Your task to perform on an android device: Search for bose soundlink on ebay.com, select the first entry, and add it to the cart. Image 0: 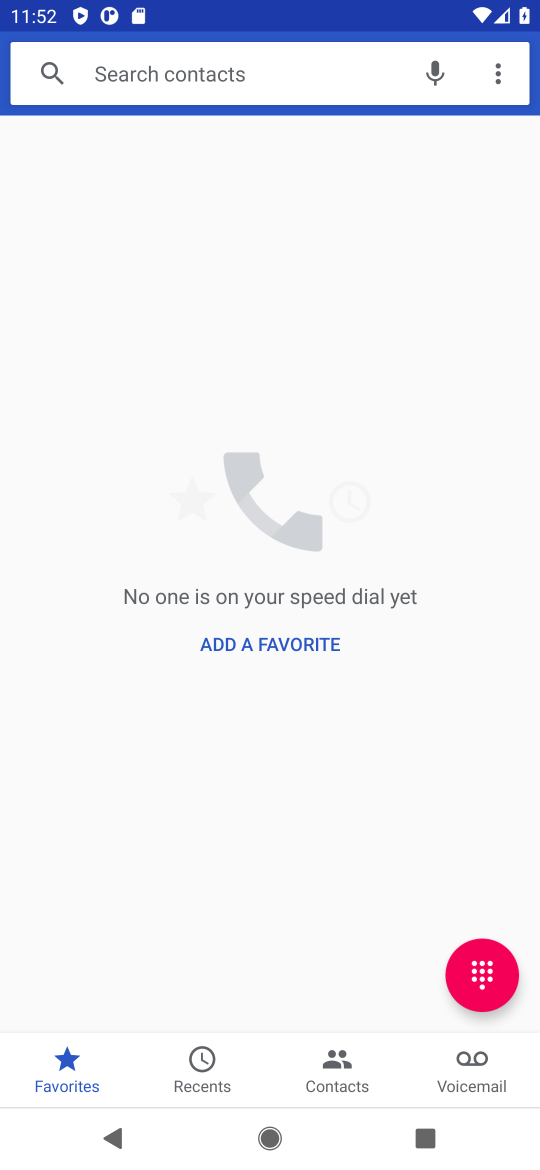
Step 0: press home button
Your task to perform on an android device: Search for bose soundlink on ebay.com, select the first entry, and add it to the cart. Image 1: 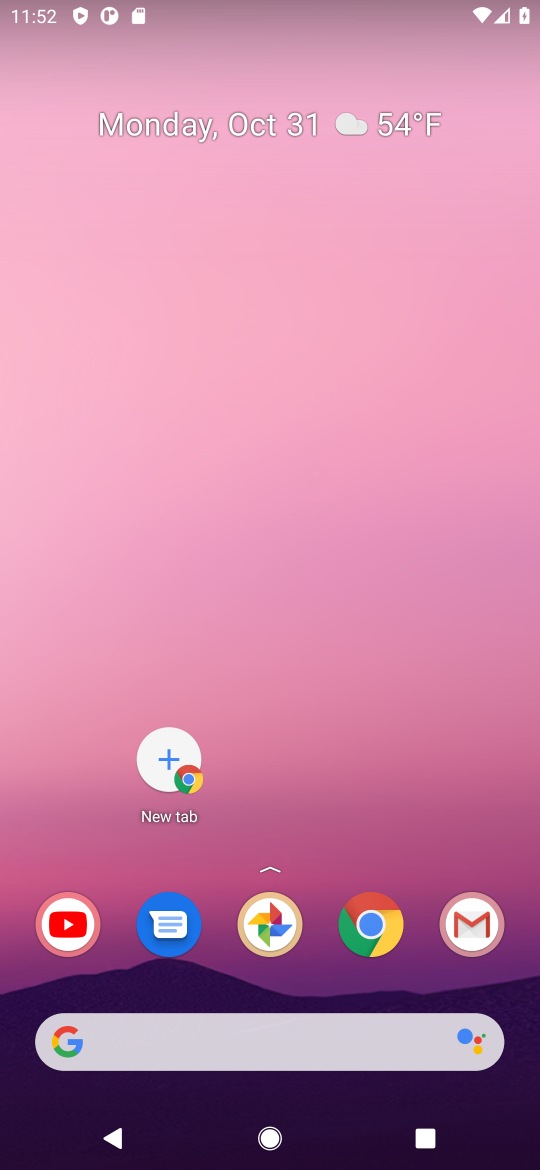
Step 1: press home button
Your task to perform on an android device: Search for bose soundlink on ebay.com, select the first entry, and add it to the cart. Image 2: 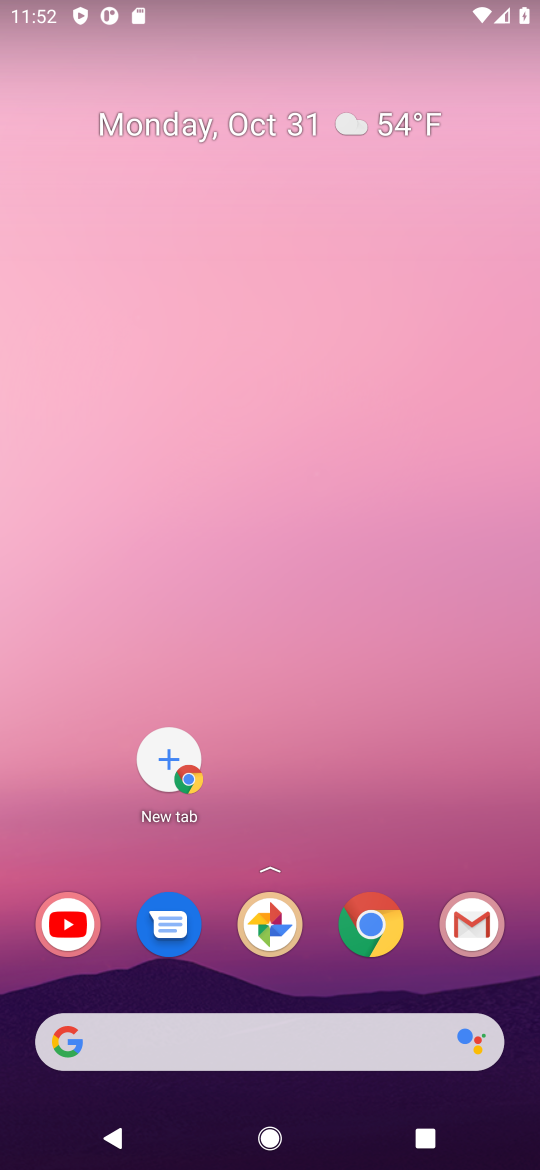
Step 2: click (358, 914)
Your task to perform on an android device: Search for bose soundlink on ebay.com, select the first entry, and add it to the cart. Image 3: 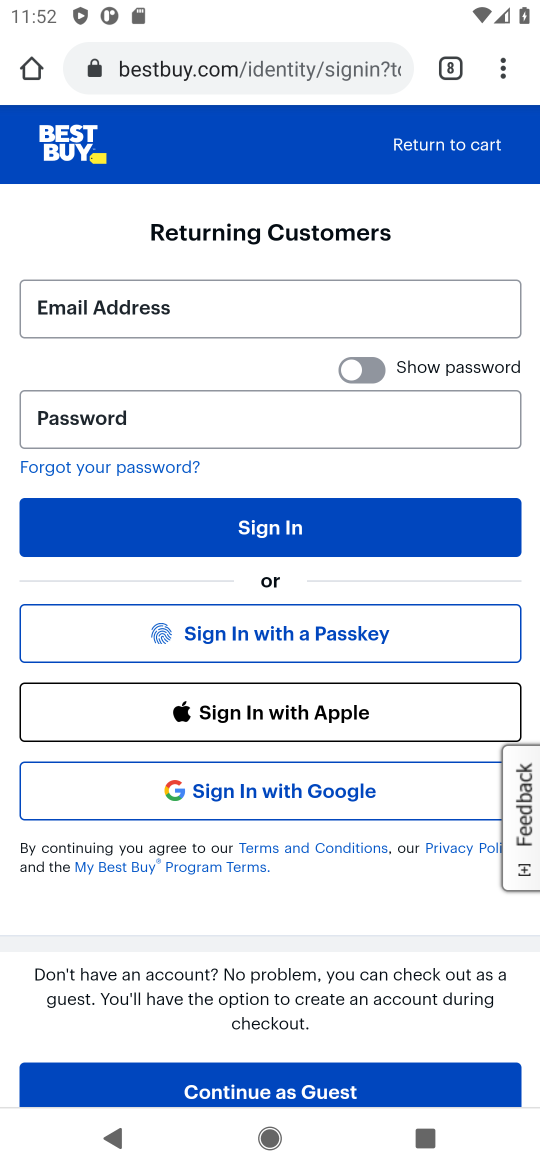
Step 3: click (131, 74)
Your task to perform on an android device: Search for bose soundlink on ebay.com, select the first entry, and add it to the cart. Image 4: 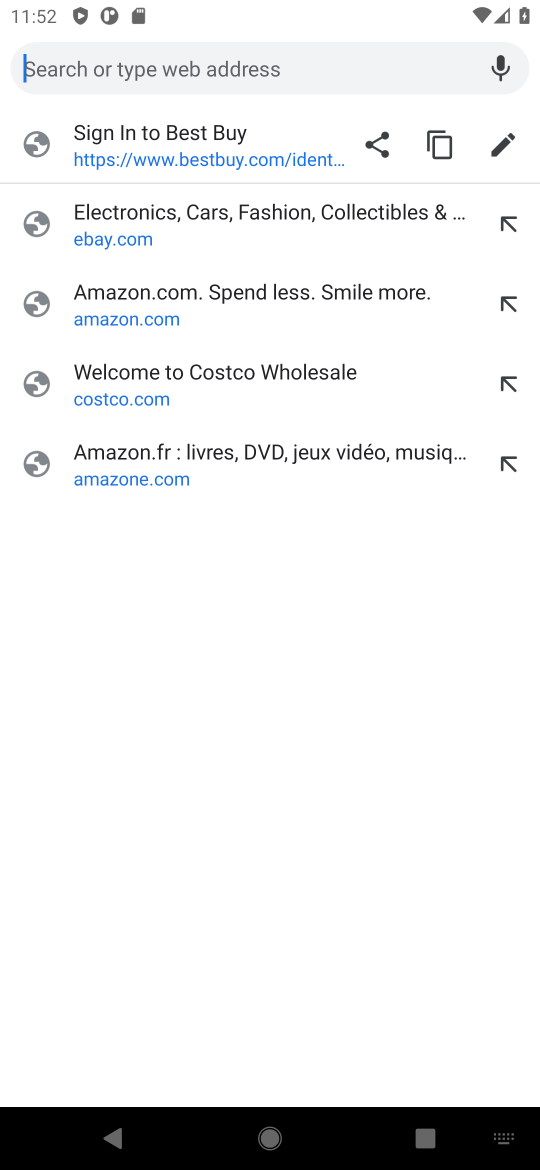
Step 4: type "ebay.com"
Your task to perform on an android device: Search for bose soundlink on ebay.com, select the first entry, and add it to the cart. Image 5: 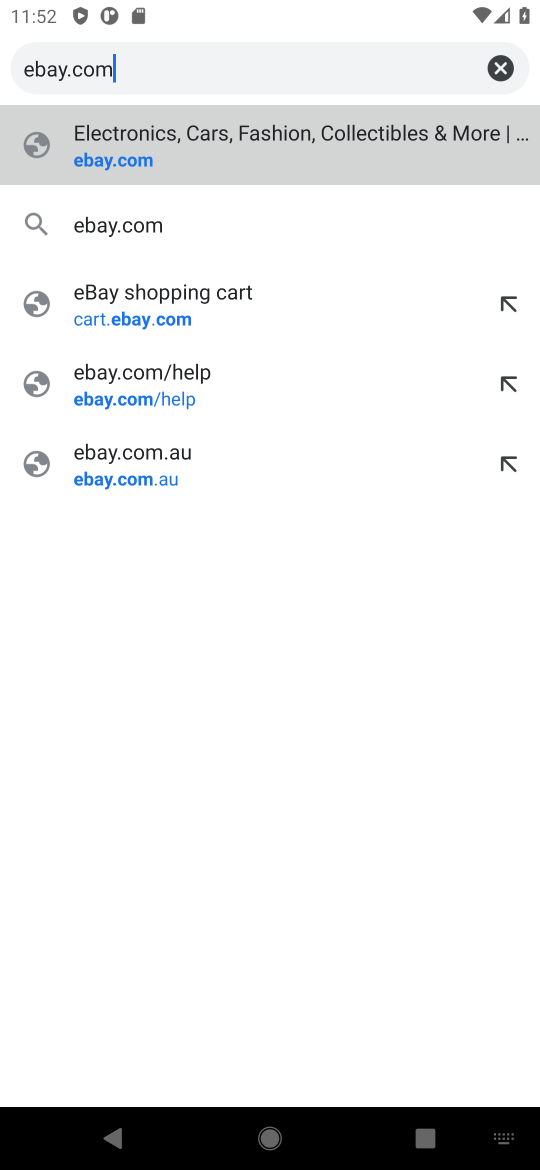
Step 5: click (110, 222)
Your task to perform on an android device: Search for bose soundlink on ebay.com, select the first entry, and add it to the cart. Image 6: 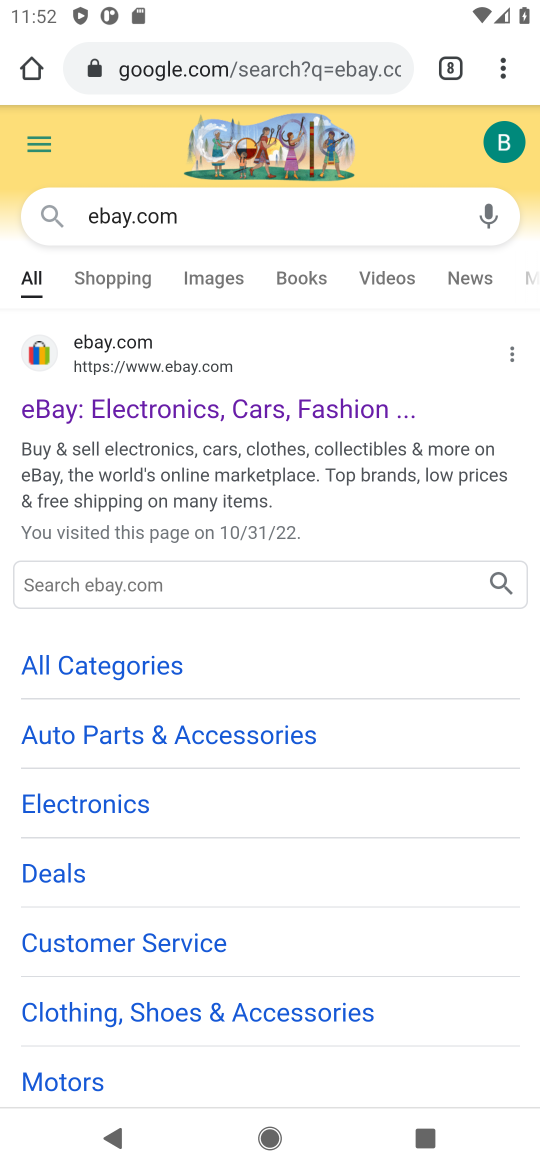
Step 6: click (144, 401)
Your task to perform on an android device: Search for bose soundlink on ebay.com, select the first entry, and add it to the cart. Image 7: 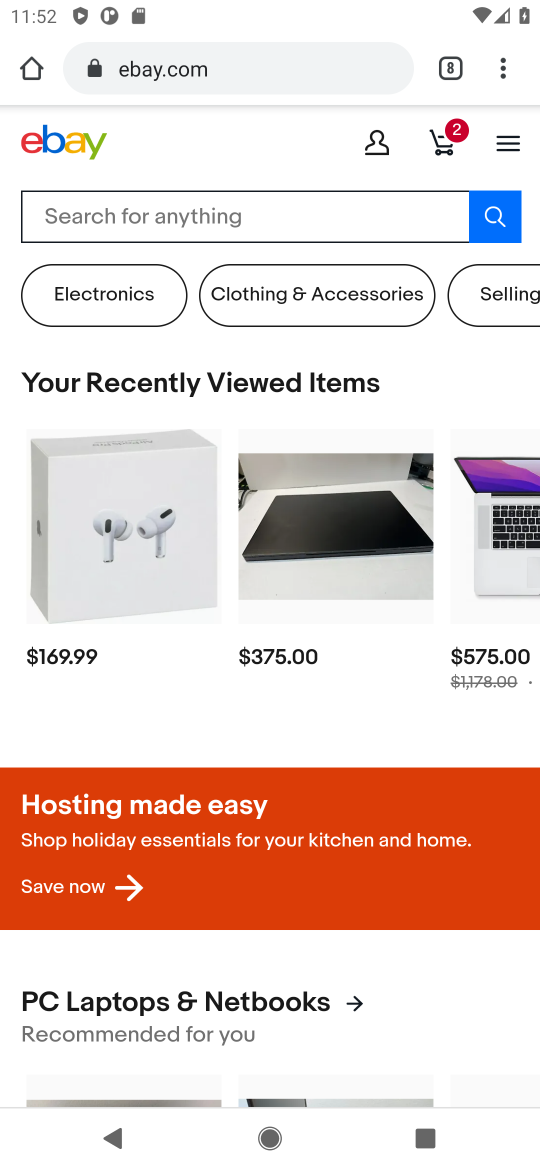
Step 7: click (161, 216)
Your task to perform on an android device: Search for bose soundlink on ebay.com, select the first entry, and add it to the cart. Image 8: 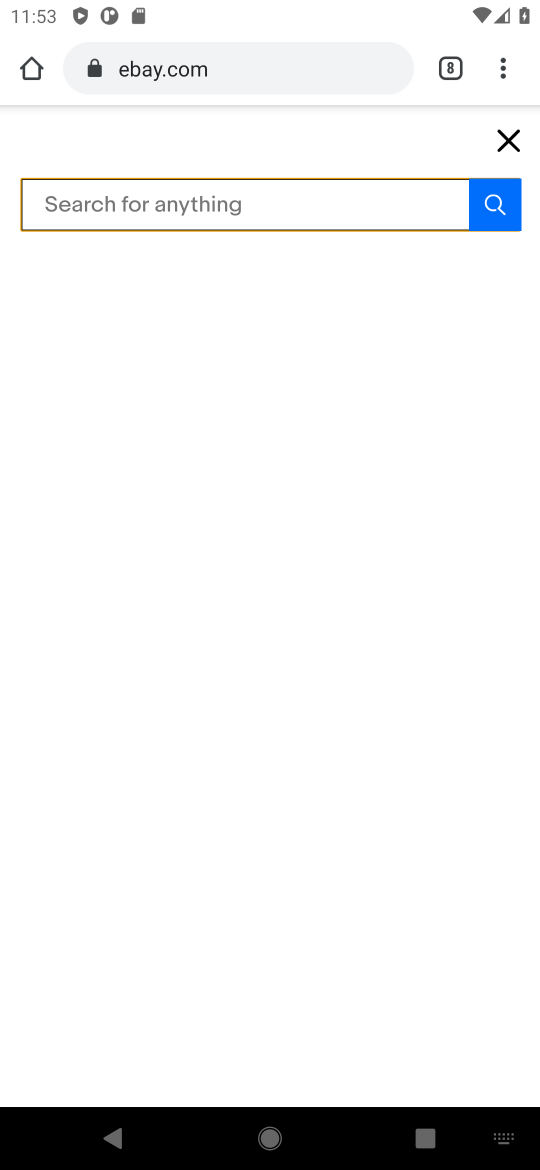
Step 8: type "bose soundlink"
Your task to perform on an android device: Search for bose soundlink on ebay.com, select the first entry, and add it to the cart. Image 9: 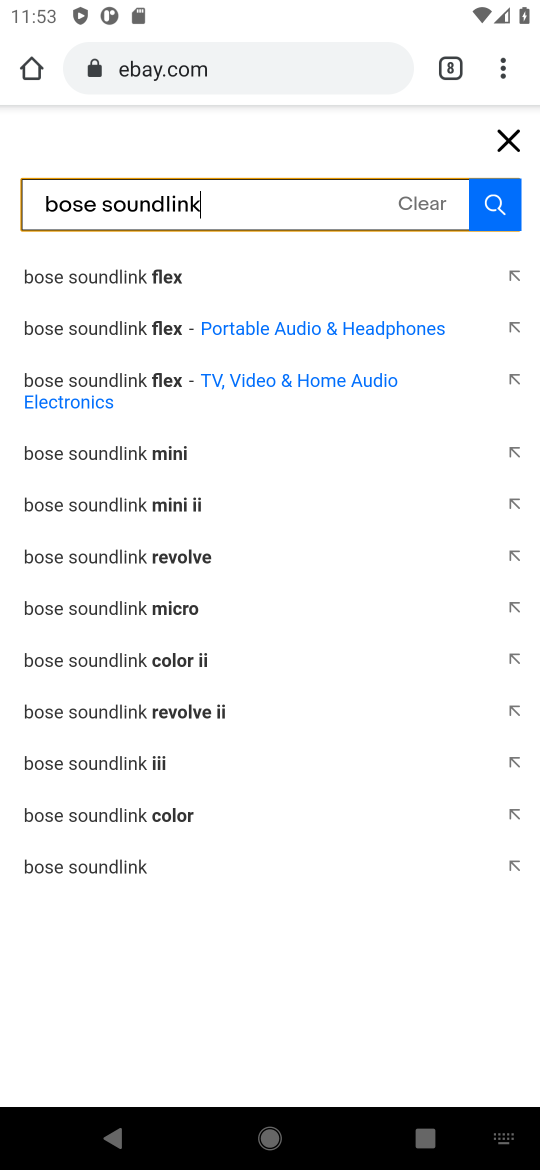
Step 9: click (77, 865)
Your task to perform on an android device: Search for bose soundlink on ebay.com, select the first entry, and add it to the cart. Image 10: 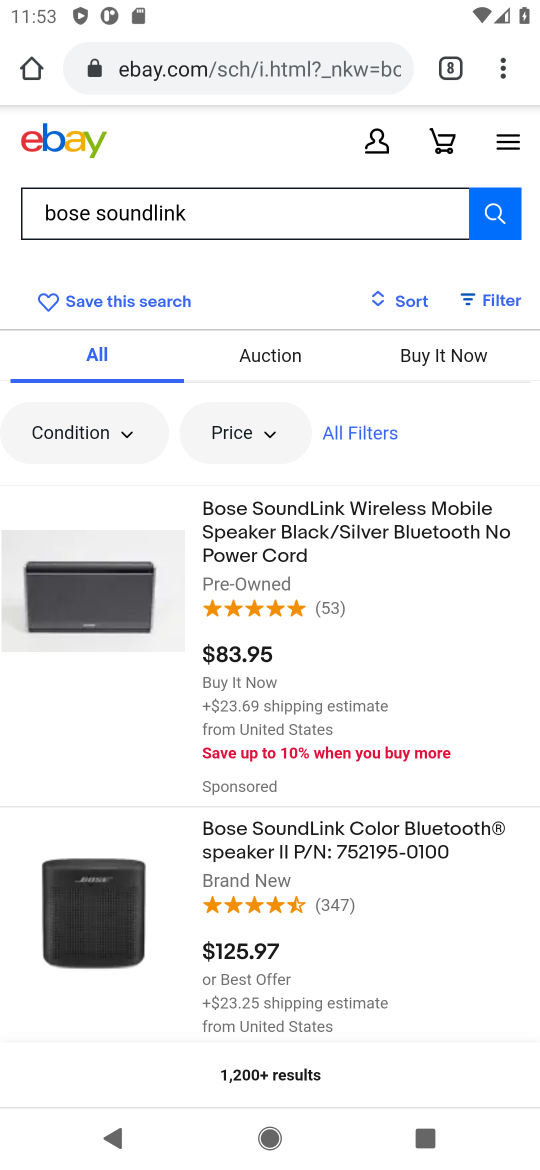
Step 10: click (250, 627)
Your task to perform on an android device: Search for bose soundlink on ebay.com, select the first entry, and add it to the cart. Image 11: 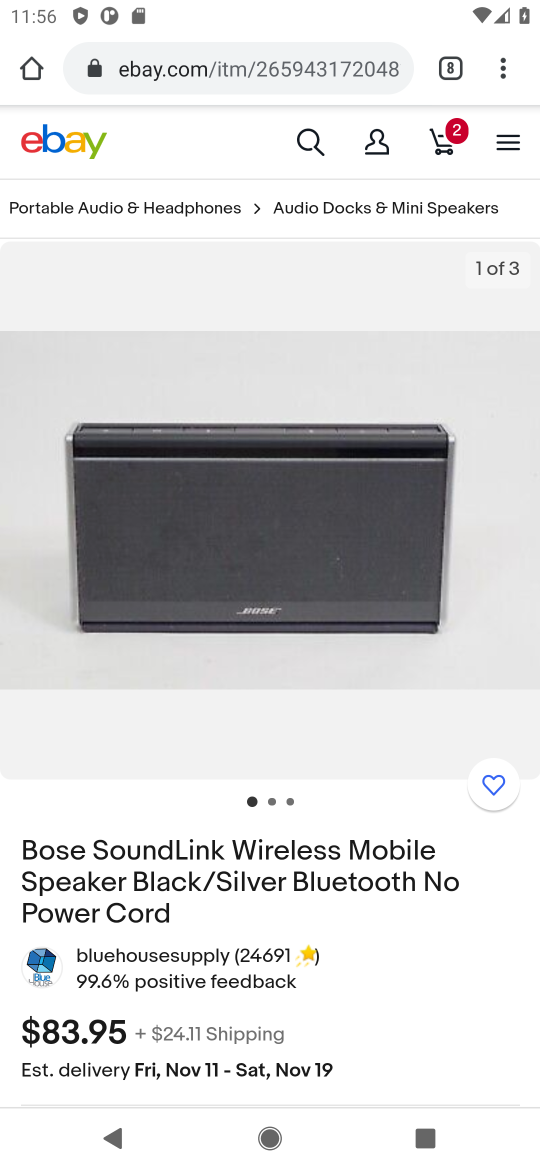
Step 11: drag from (253, 825) to (288, 467)
Your task to perform on an android device: Search for bose soundlink on ebay.com, select the first entry, and add it to the cart. Image 12: 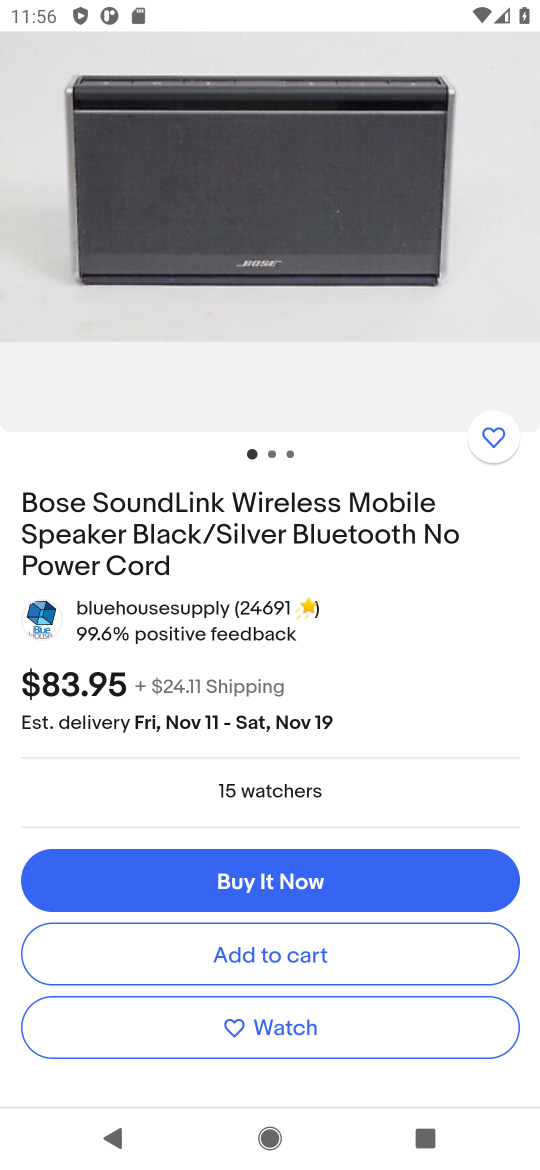
Step 12: click (252, 963)
Your task to perform on an android device: Search for bose soundlink on ebay.com, select the first entry, and add it to the cart. Image 13: 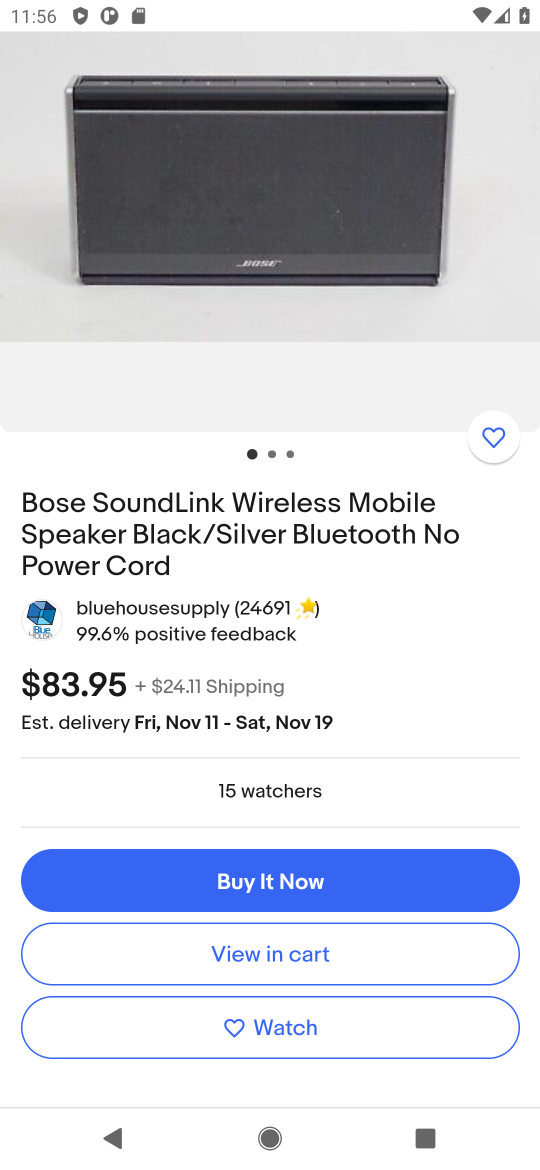
Step 13: click (261, 959)
Your task to perform on an android device: Search for bose soundlink on ebay.com, select the first entry, and add it to the cart. Image 14: 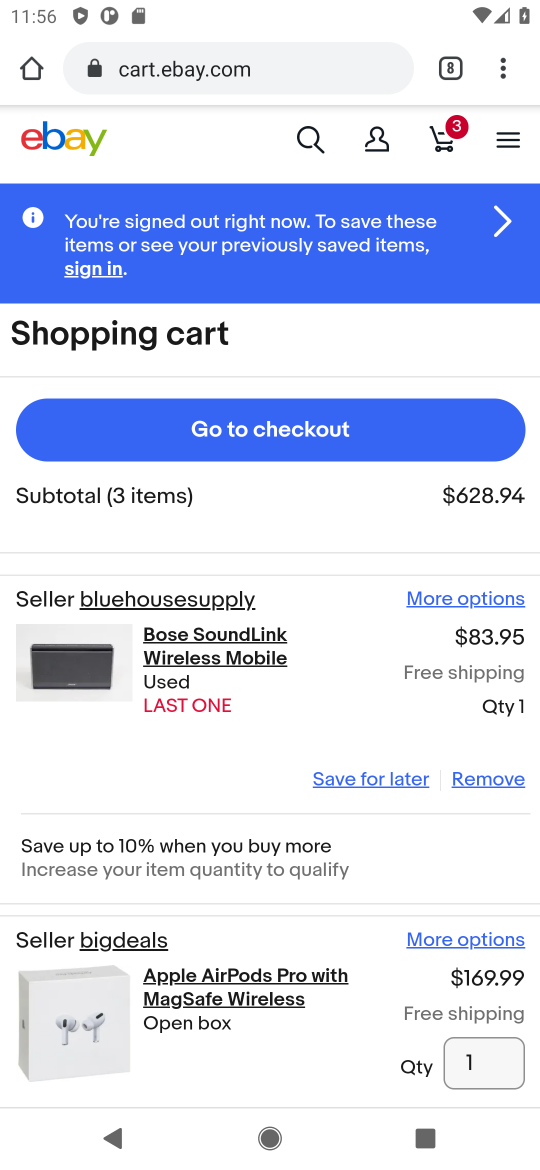
Step 14: task complete